Your task to perform on an android device: check out phone information Image 0: 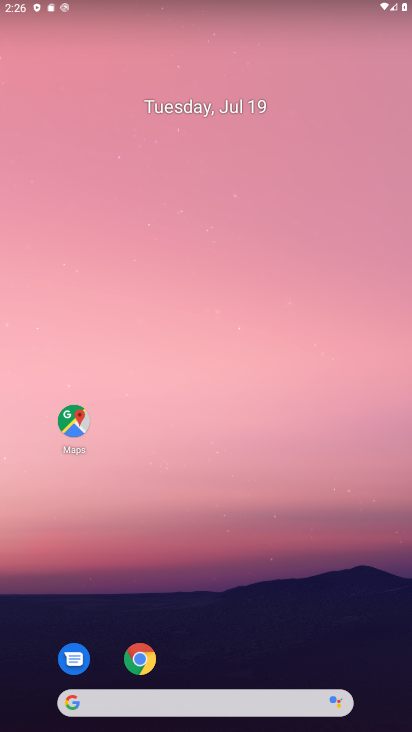
Step 0: drag from (204, 690) to (318, 204)
Your task to perform on an android device: check out phone information Image 1: 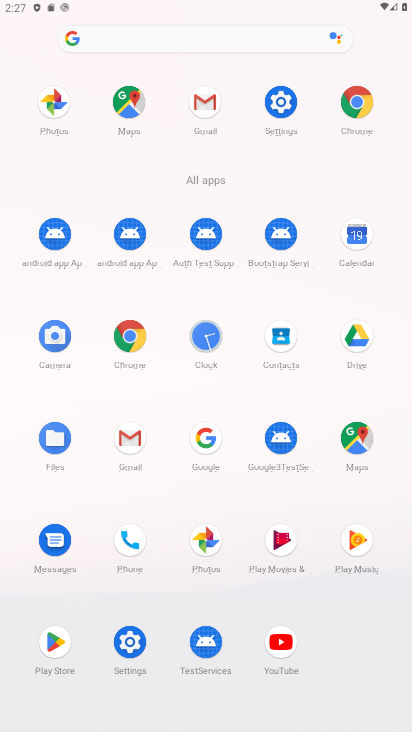
Step 1: click (128, 643)
Your task to perform on an android device: check out phone information Image 2: 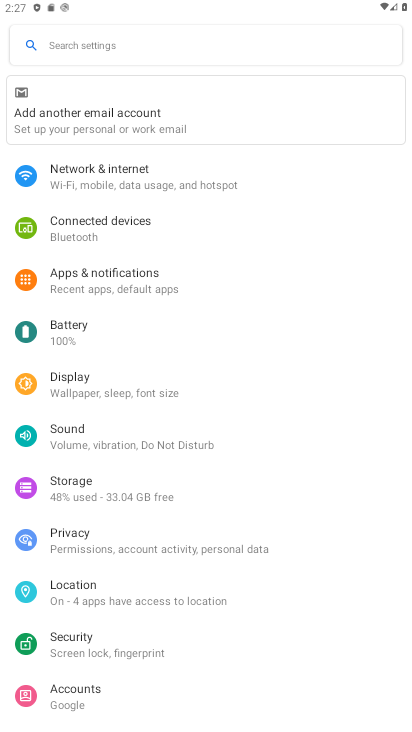
Step 2: drag from (95, 523) to (134, 335)
Your task to perform on an android device: check out phone information Image 3: 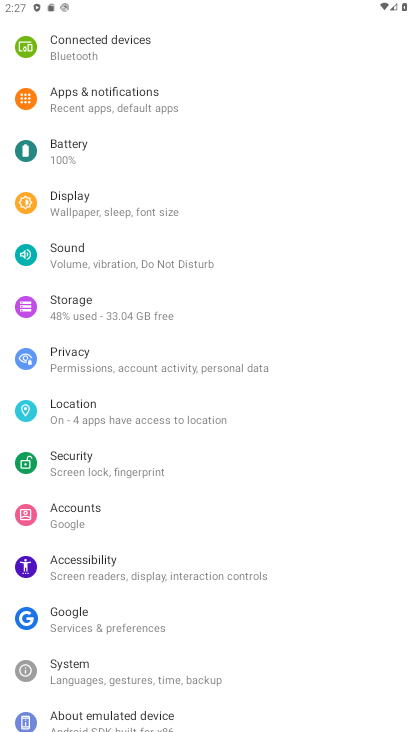
Step 3: drag from (81, 536) to (133, 432)
Your task to perform on an android device: check out phone information Image 4: 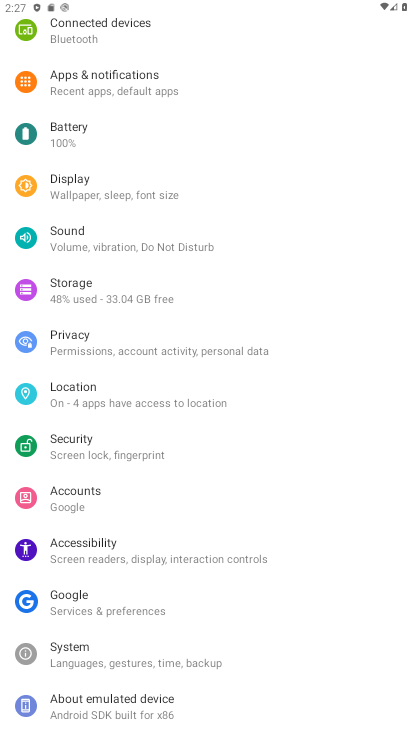
Step 4: click (85, 705)
Your task to perform on an android device: check out phone information Image 5: 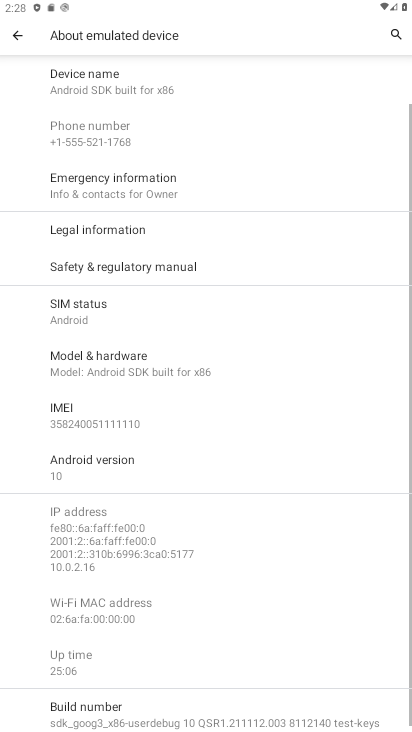
Step 5: task complete